Your task to perform on an android device: Set the phone to "Do not disturb". Image 0: 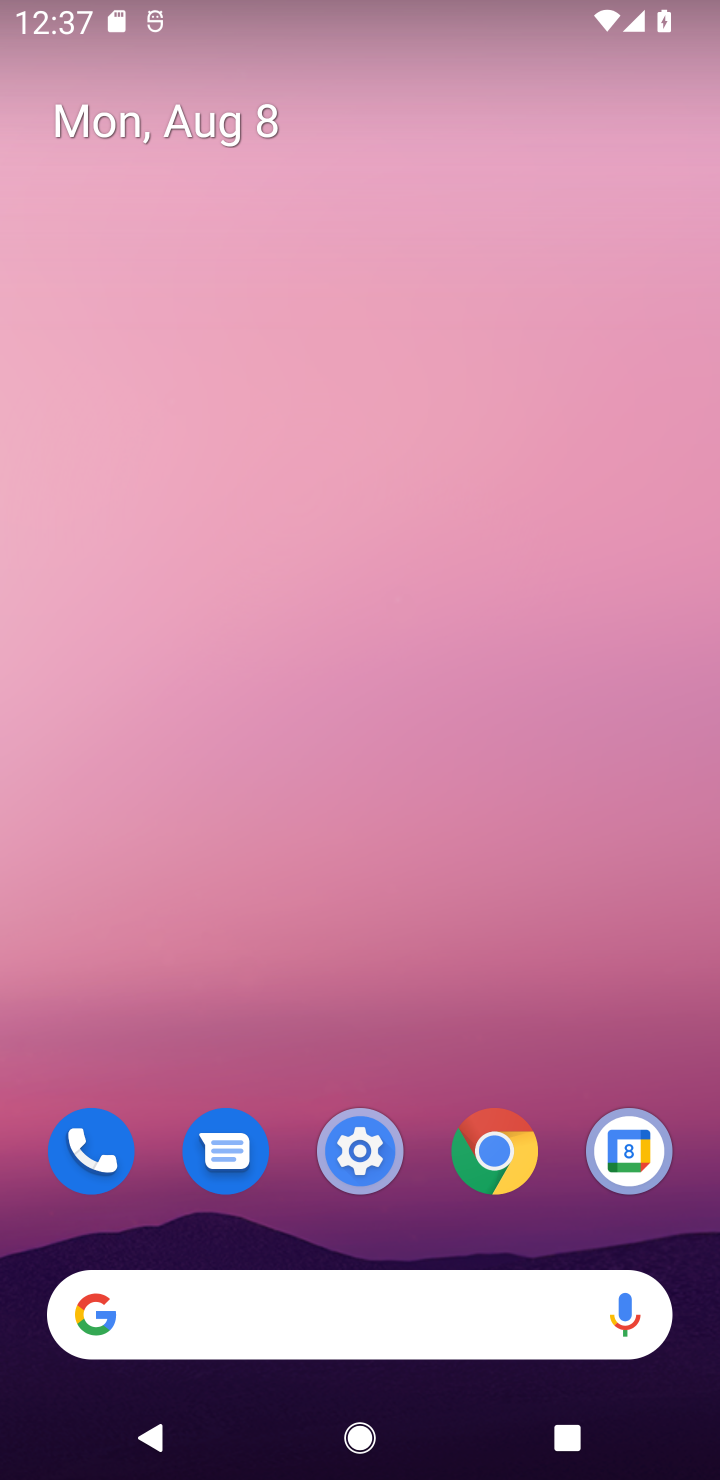
Step 0: drag from (369, 1172) to (313, 147)
Your task to perform on an android device: Set the phone to "Do not disturb". Image 1: 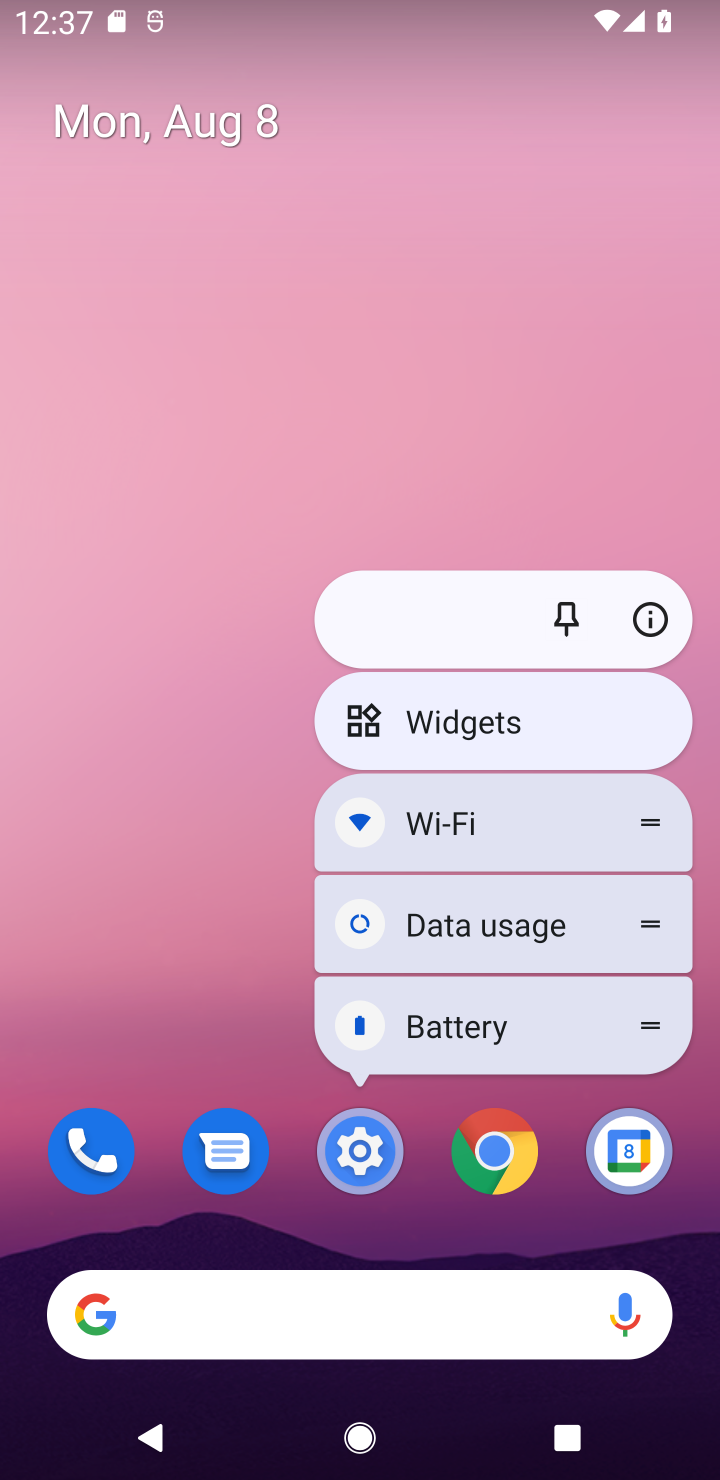
Step 1: click (330, 1153)
Your task to perform on an android device: Set the phone to "Do not disturb". Image 2: 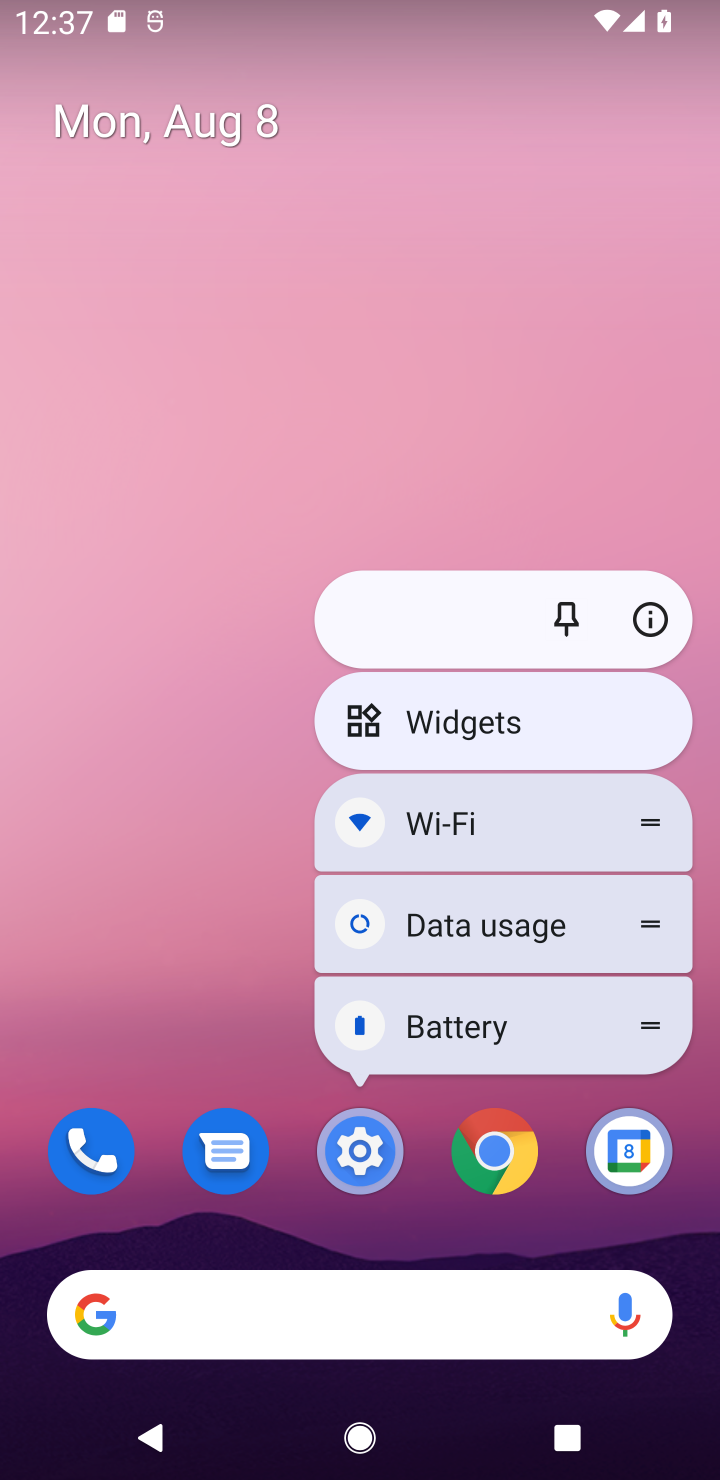
Step 2: click (343, 1142)
Your task to perform on an android device: Set the phone to "Do not disturb". Image 3: 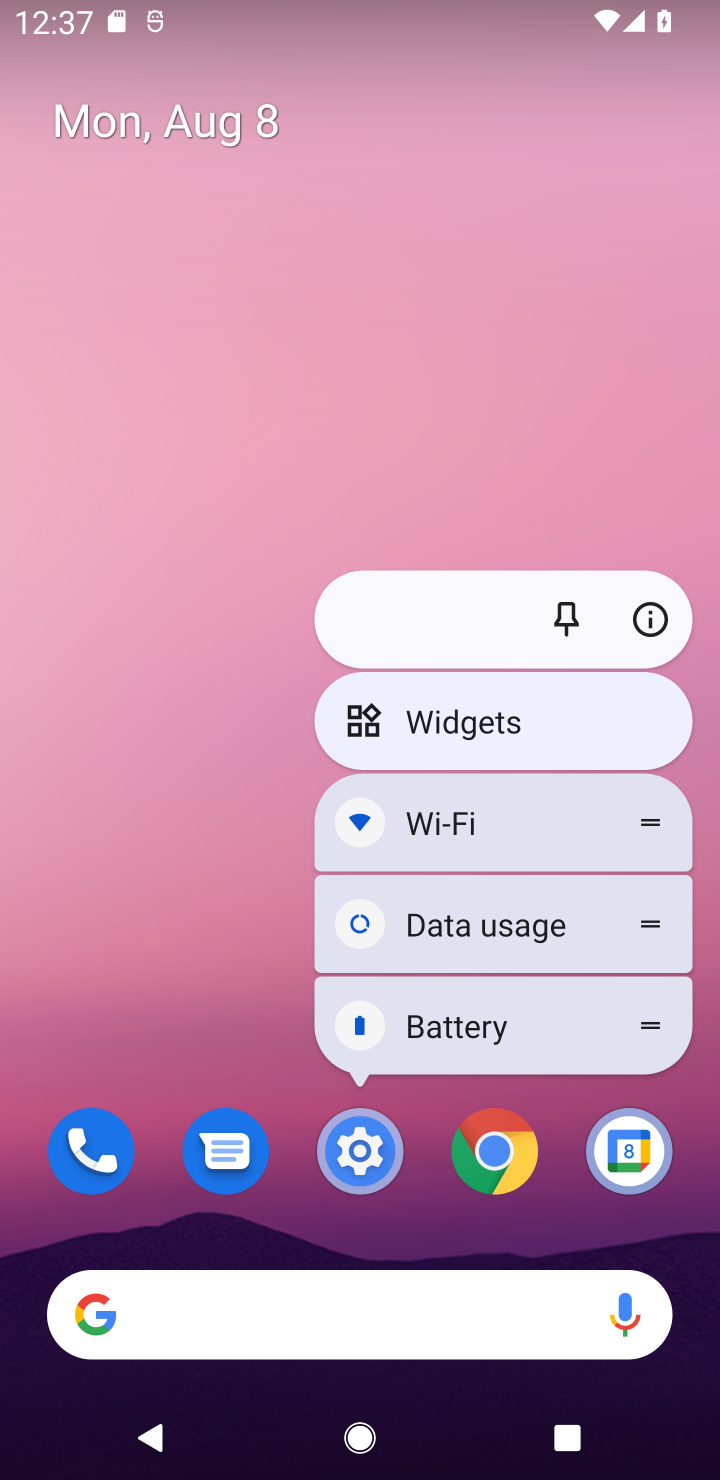
Step 3: click (336, 1131)
Your task to perform on an android device: Set the phone to "Do not disturb". Image 4: 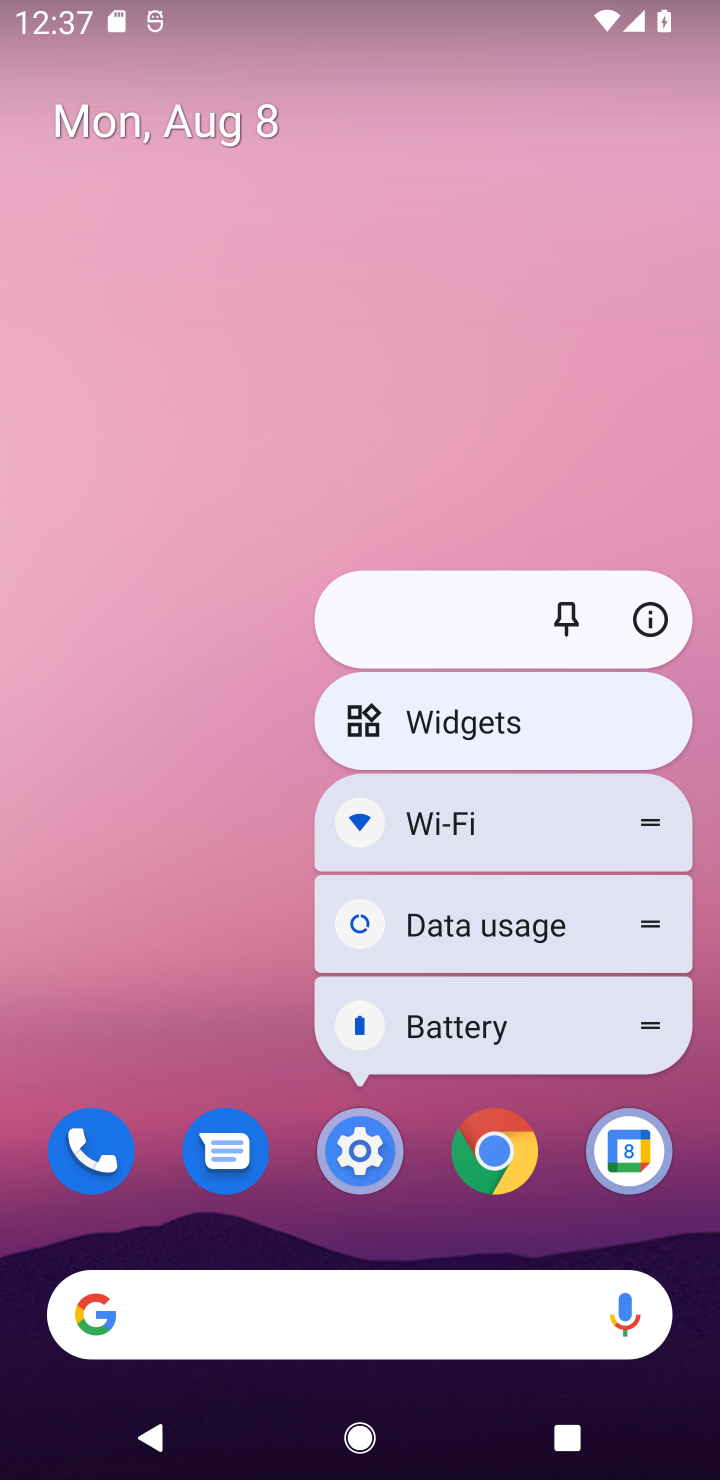
Step 4: click (363, 1159)
Your task to perform on an android device: Set the phone to "Do not disturb". Image 5: 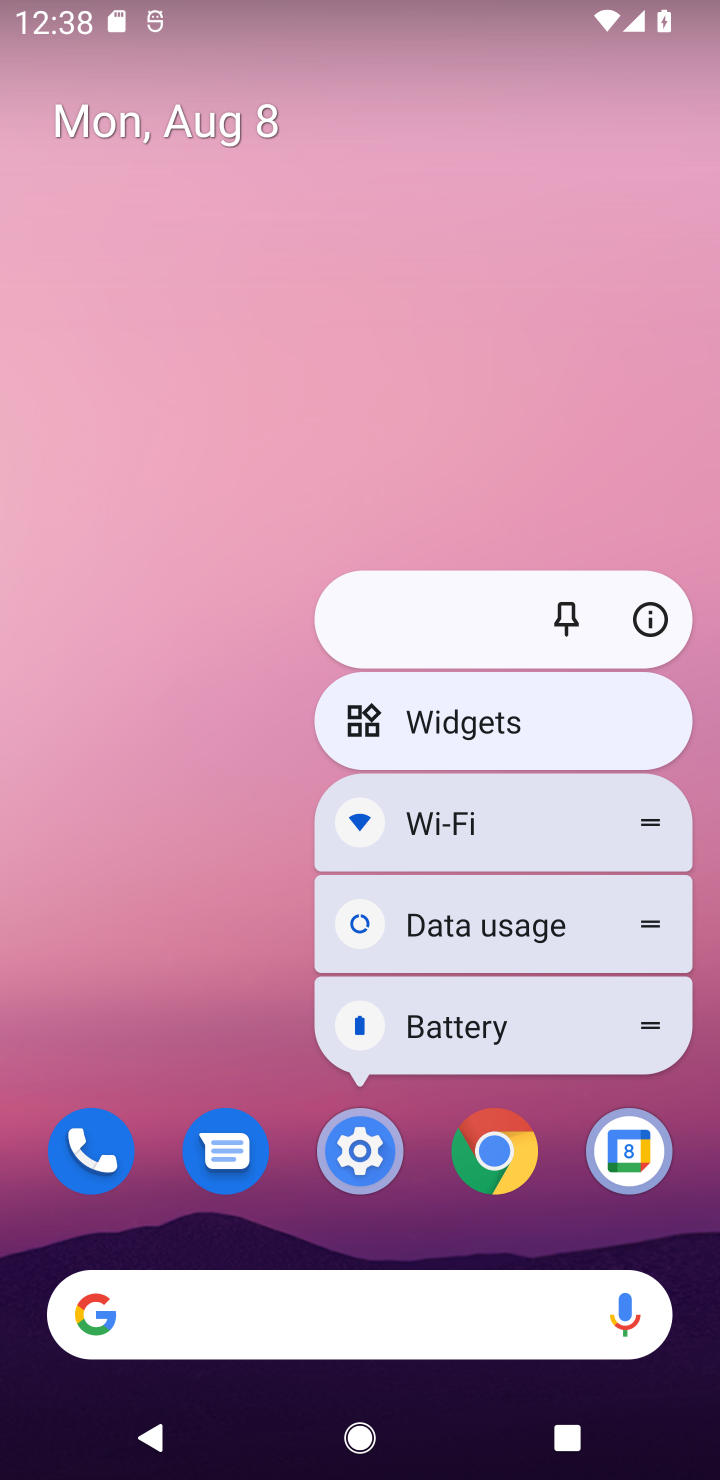
Step 5: click (332, 1134)
Your task to perform on an android device: Set the phone to "Do not disturb". Image 6: 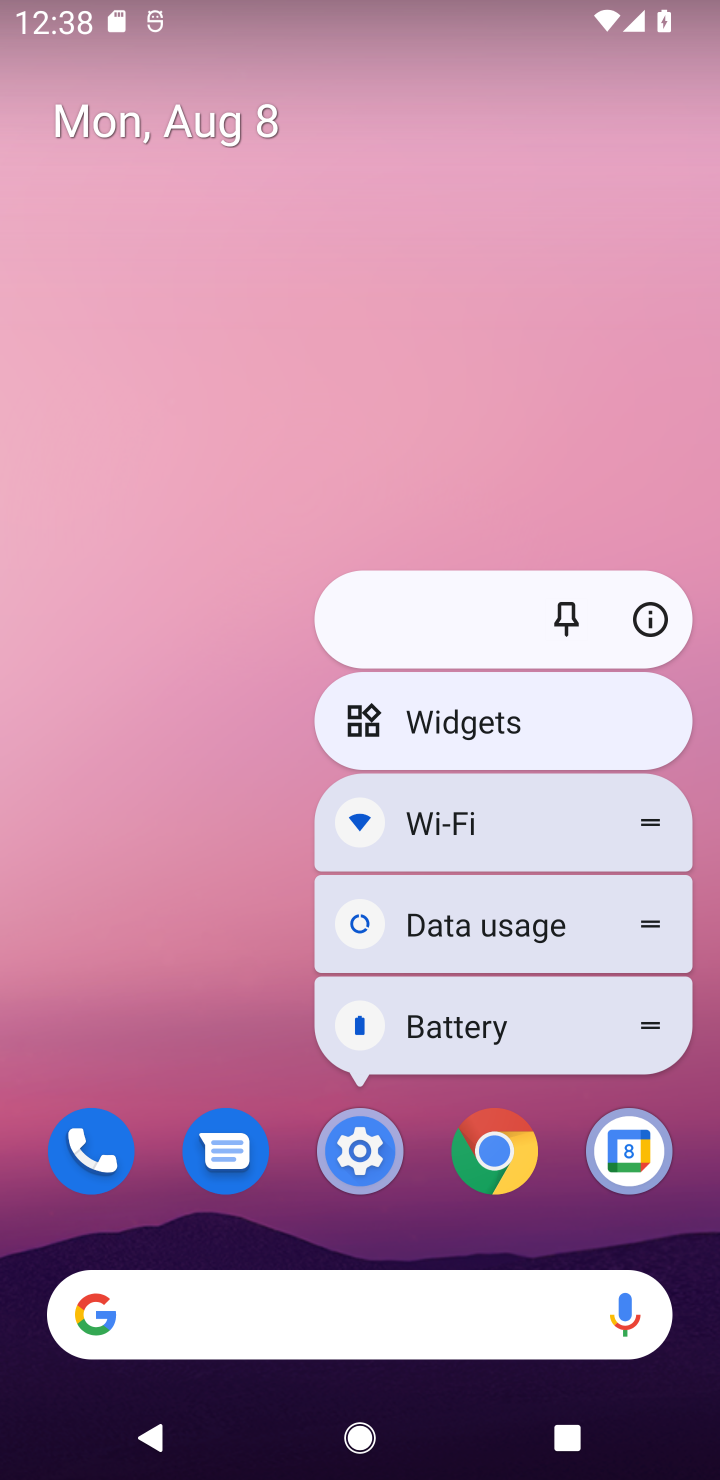
Step 6: click (367, 1128)
Your task to perform on an android device: Set the phone to "Do not disturb". Image 7: 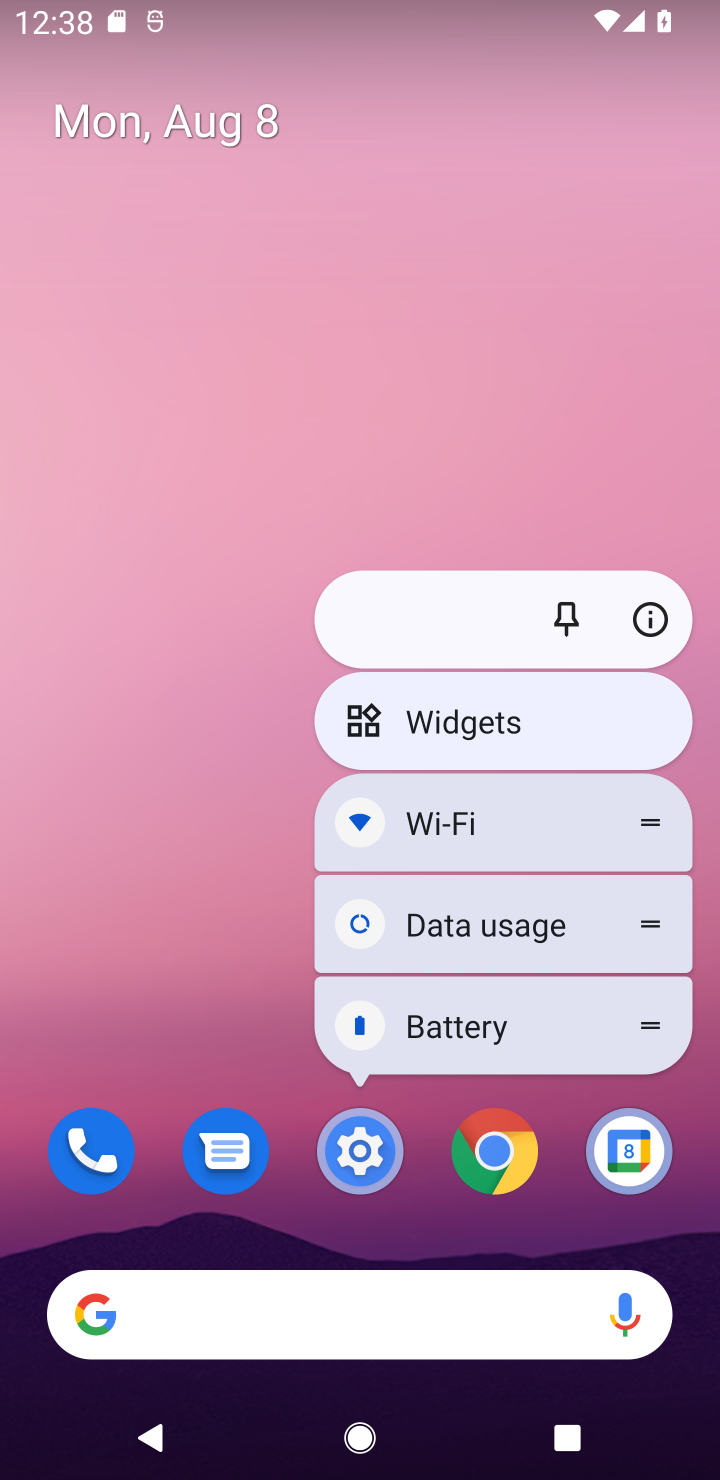
Step 7: drag from (230, 1225) to (27, 389)
Your task to perform on an android device: Set the phone to "Do not disturb". Image 8: 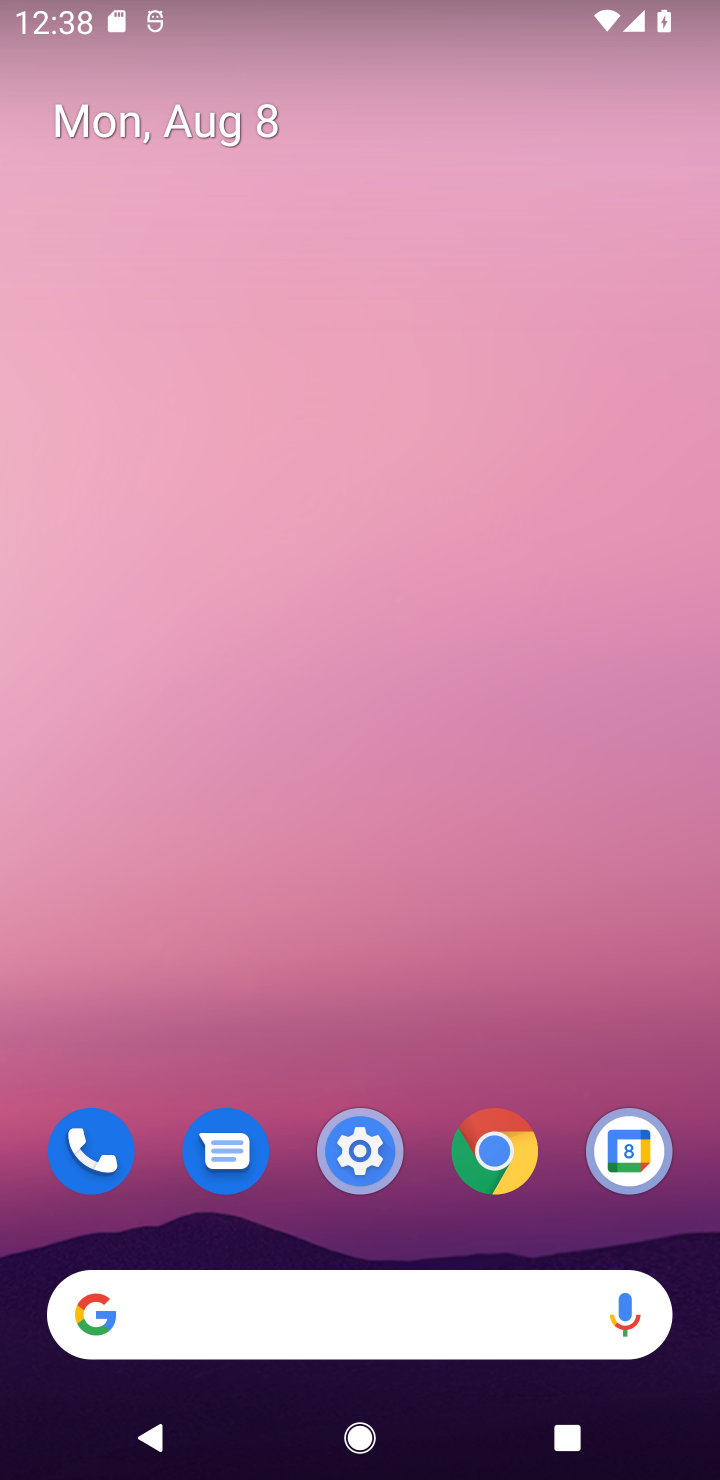
Step 8: drag from (412, 949) to (147, 18)
Your task to perform on an android device: Set the phone to "Do not disturb". Image 9: 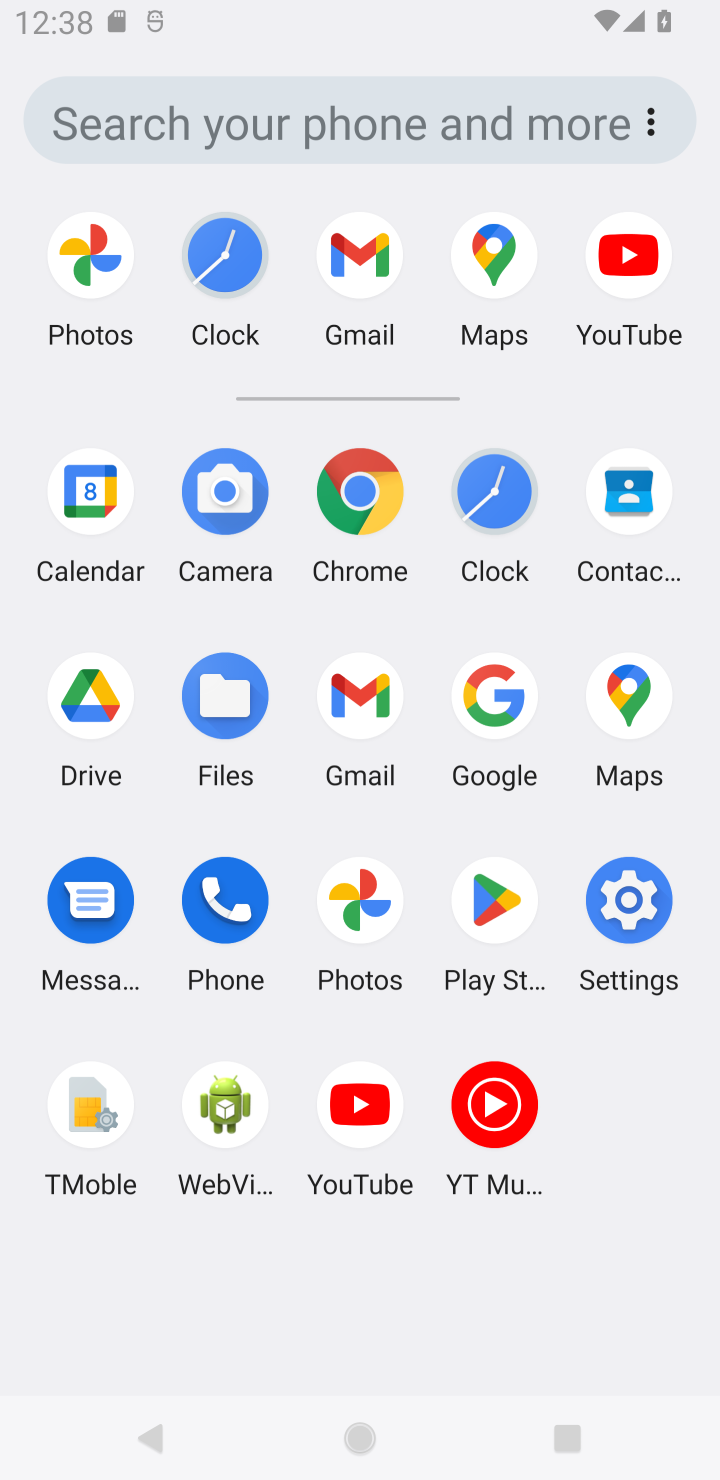
Step 9: click (647, 903)
Your task to perform on an android device: Set the phone to "Do not disturb". Image 10: 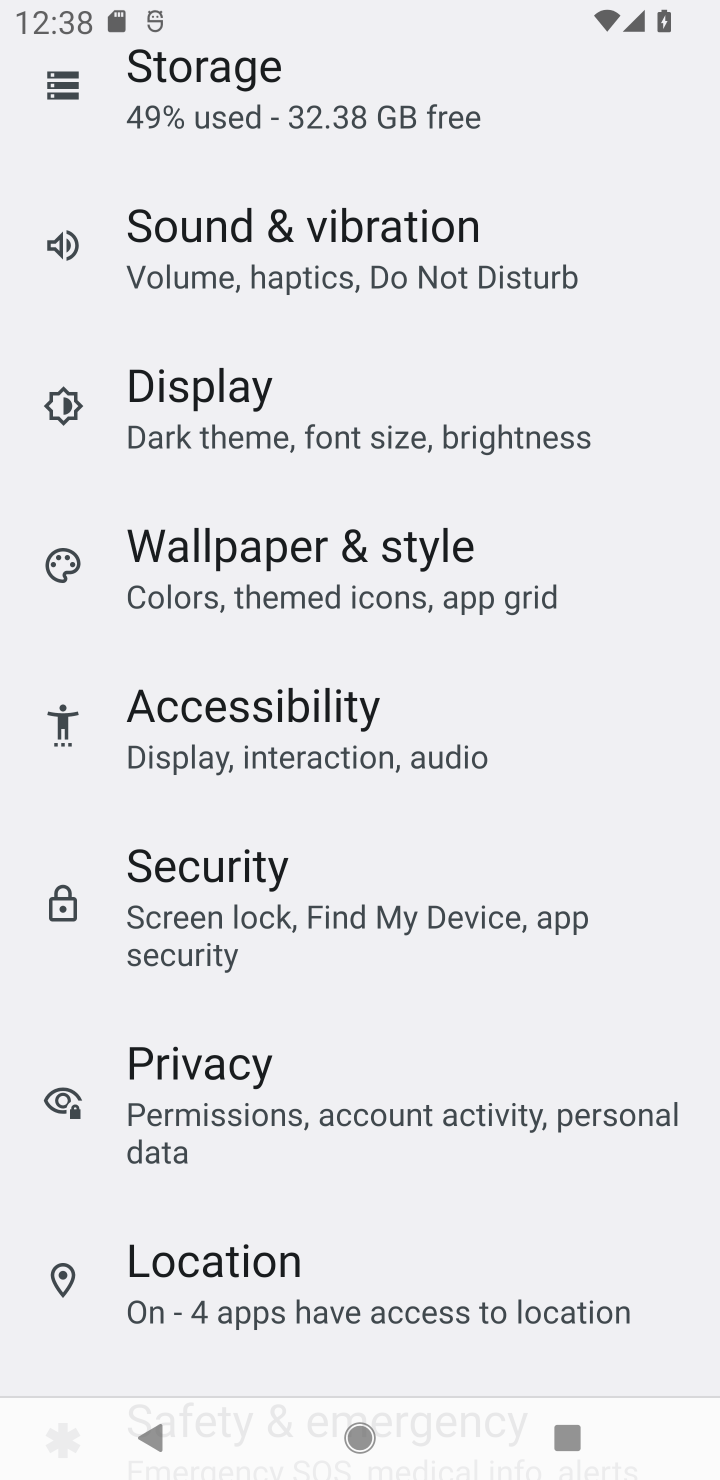
Step 10: click (322, 230)
Your task to perform on an android device: Set the phone to "Do not disturb". Image 11: 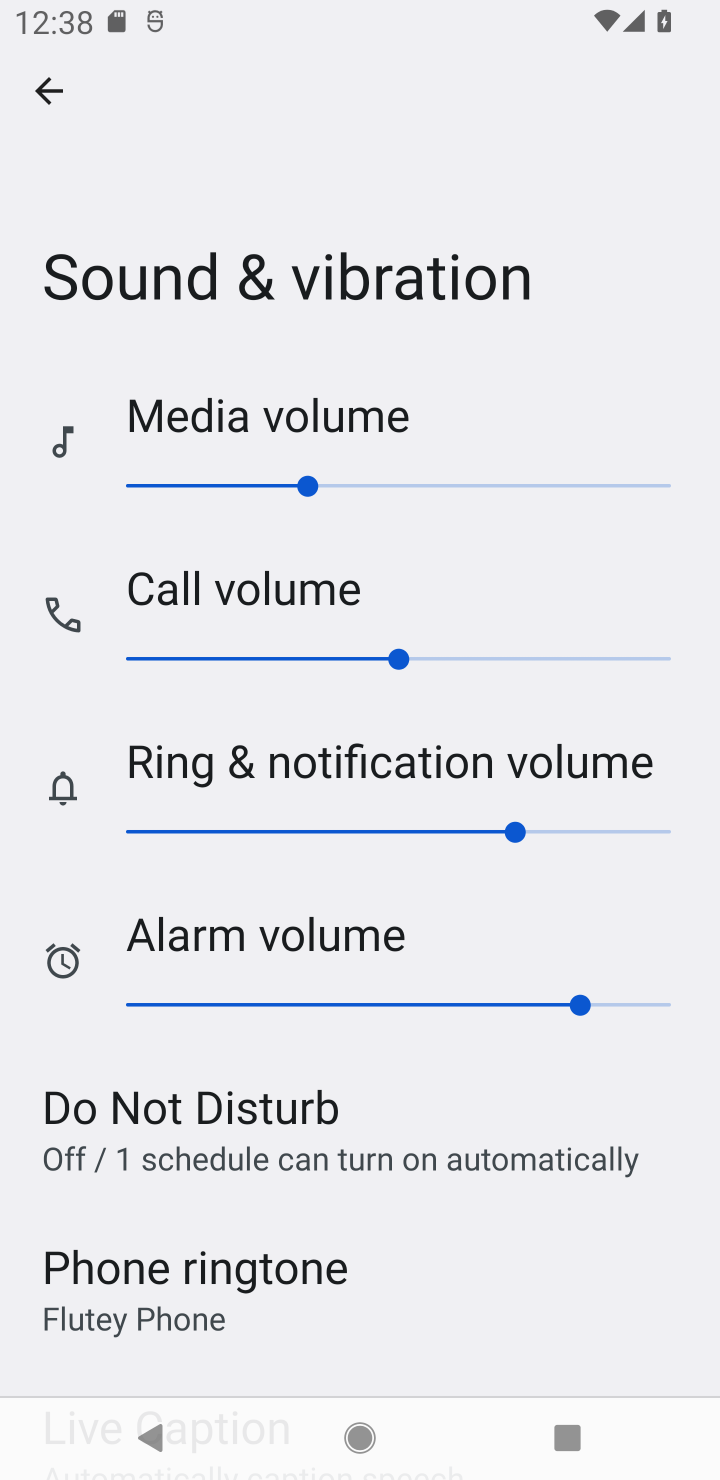
Step 11: click (270, 1133)
Your task to perform on an android device: Set the phone to "Do not disturb". Image 12: 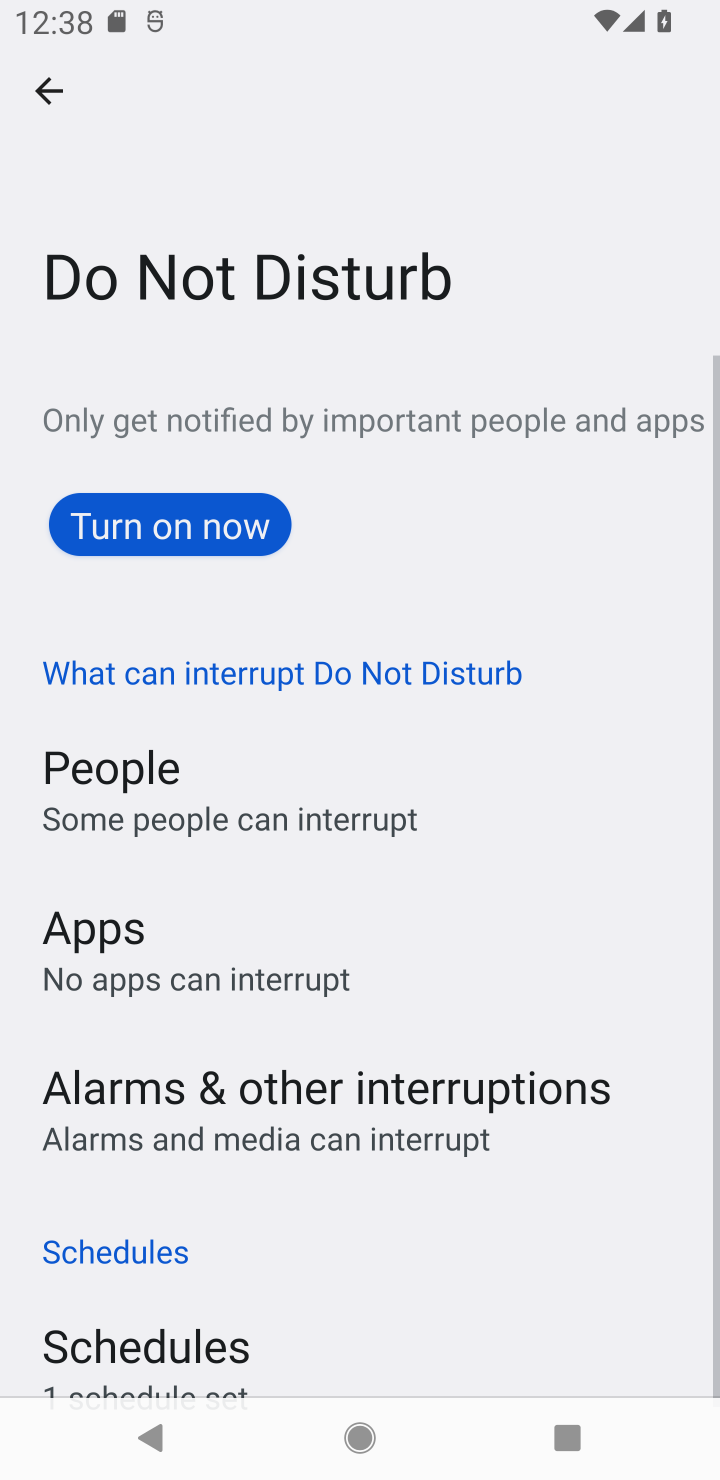
Step 12: click (151, 528)
Your task to perform on an android device: Set the phone to "Do not disturb". Image 13: 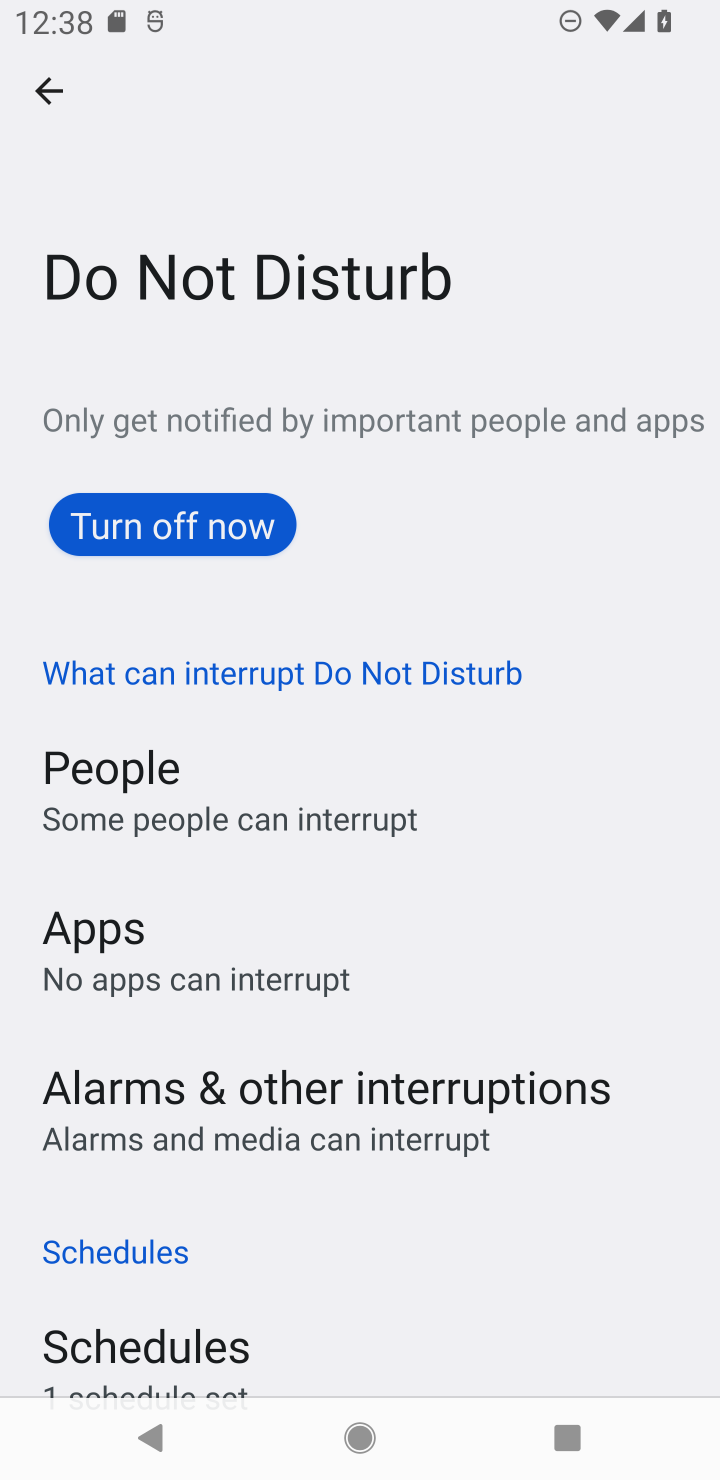
Step 13: task complete